Your task to perform on an android device: Open maps Image 0: 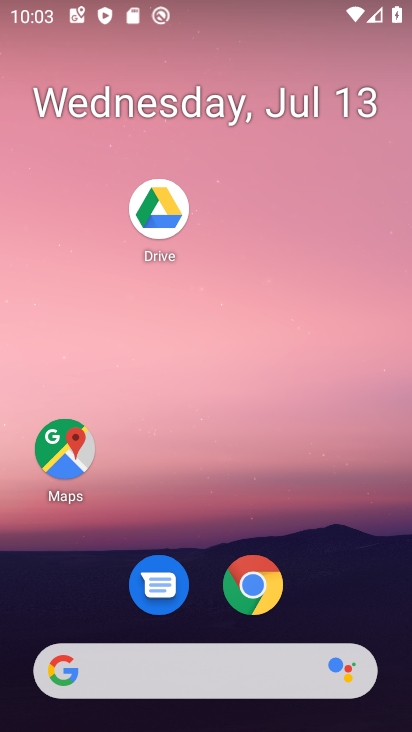
Step 0: click (60, 458)
Your task to perform on an android device: Open maps Image 1: 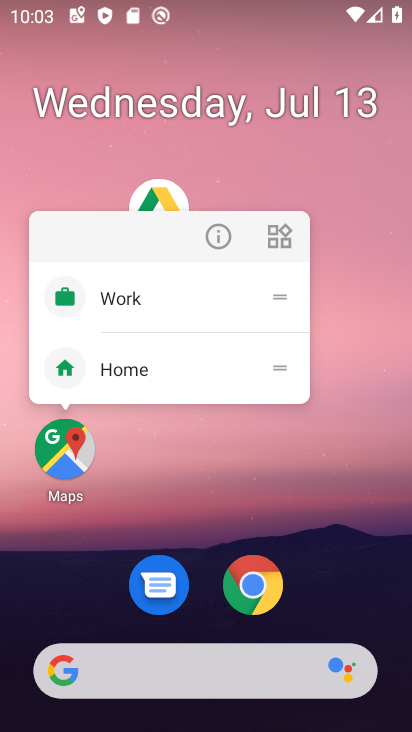
Step 1: click (60, 458)
Your task to perform on an android device: Open maps Image 2: 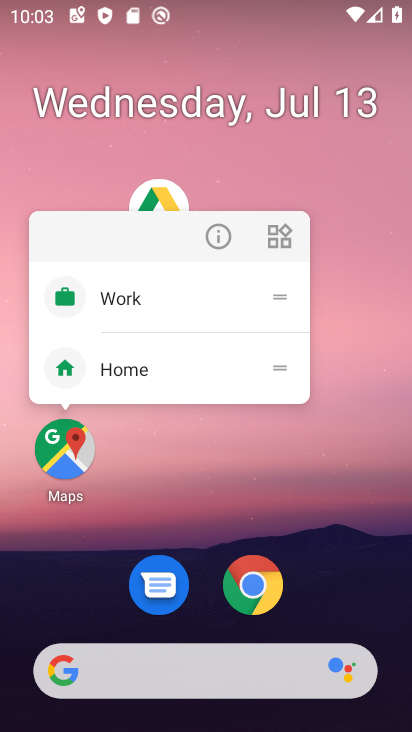
Step 2: click (60, 460)
Your task to perform on an android device: Open maps Image 3: 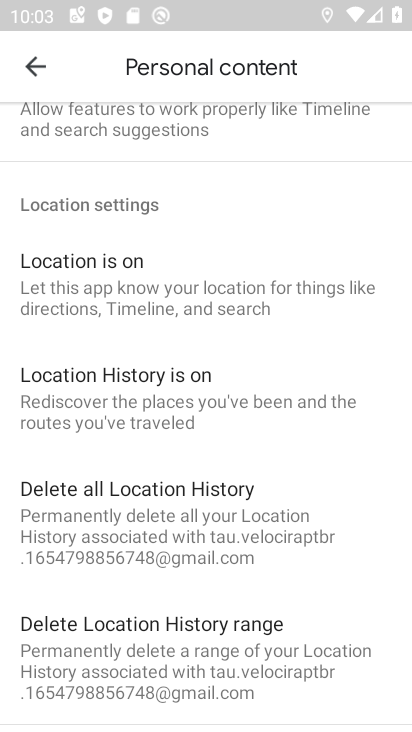
Step 3: click (23, 74)
Your task to perform on an android device: Open maps Image 4: 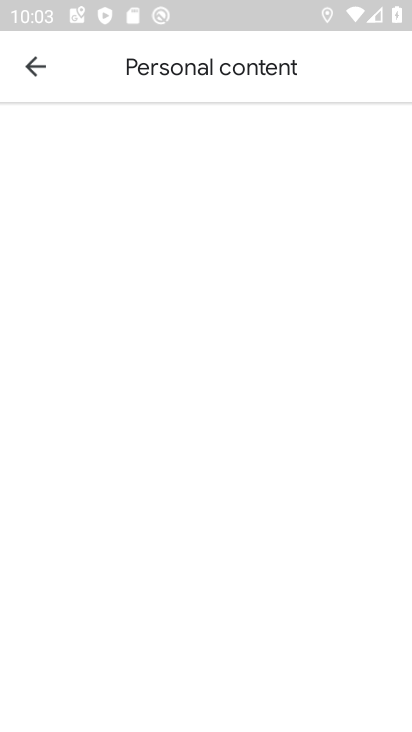
Step 4: click (34, 64)
Your task to perform on an android device: Open maps Image 5: 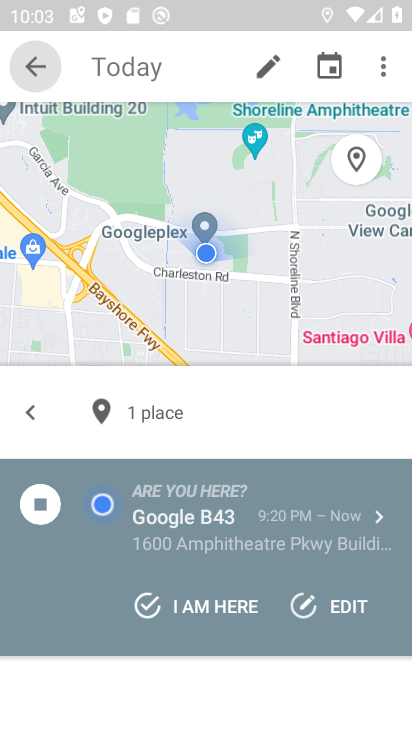
Step 5: click (31, 66)
Your task to perform on an android device: Open maps Image 6: 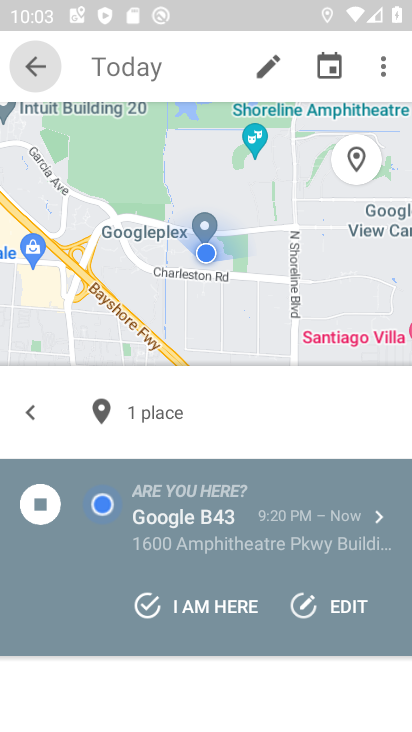
Step 6: click (34, 63)
Your task to perform on an android device: Open maps Image 7: 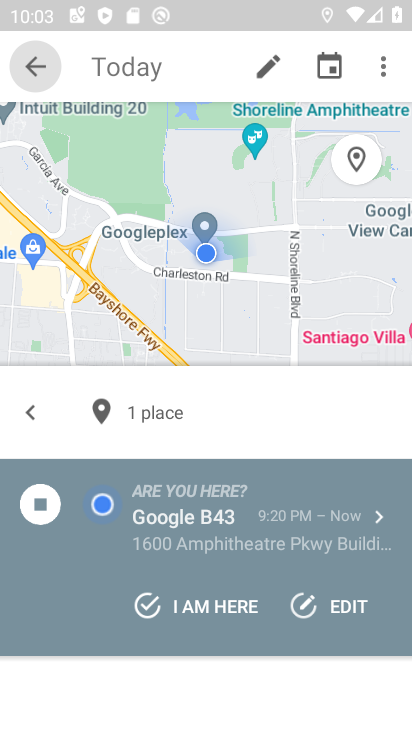
Step 7: task complete